Your task to perform on an android device: toggle notification dots Image 0: 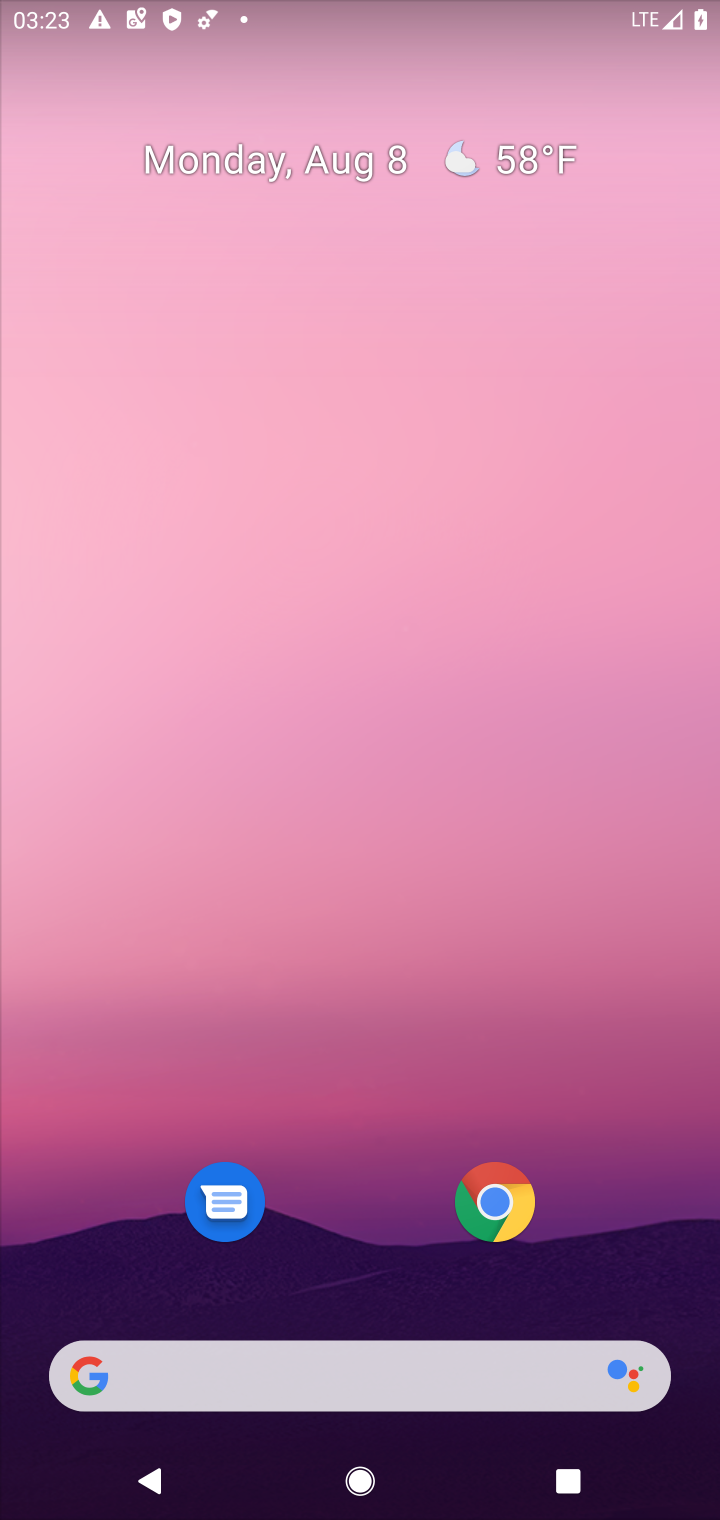
Step 0: click (211, 228)
Your task to perform on an android device: toggle notification dots Image 1: 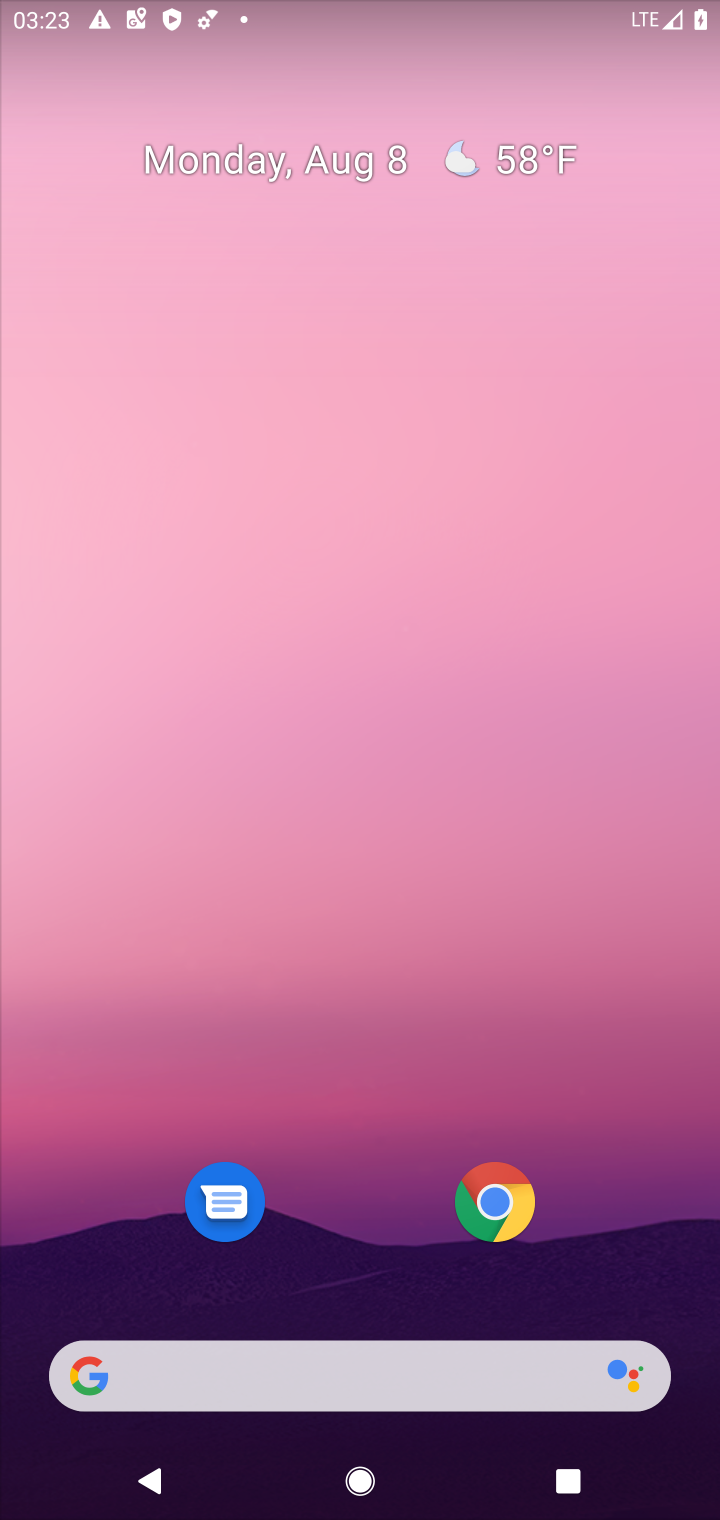
Step 1: click (350, 233)
Your task to perform on an android device: toggle notification dots Image 2: 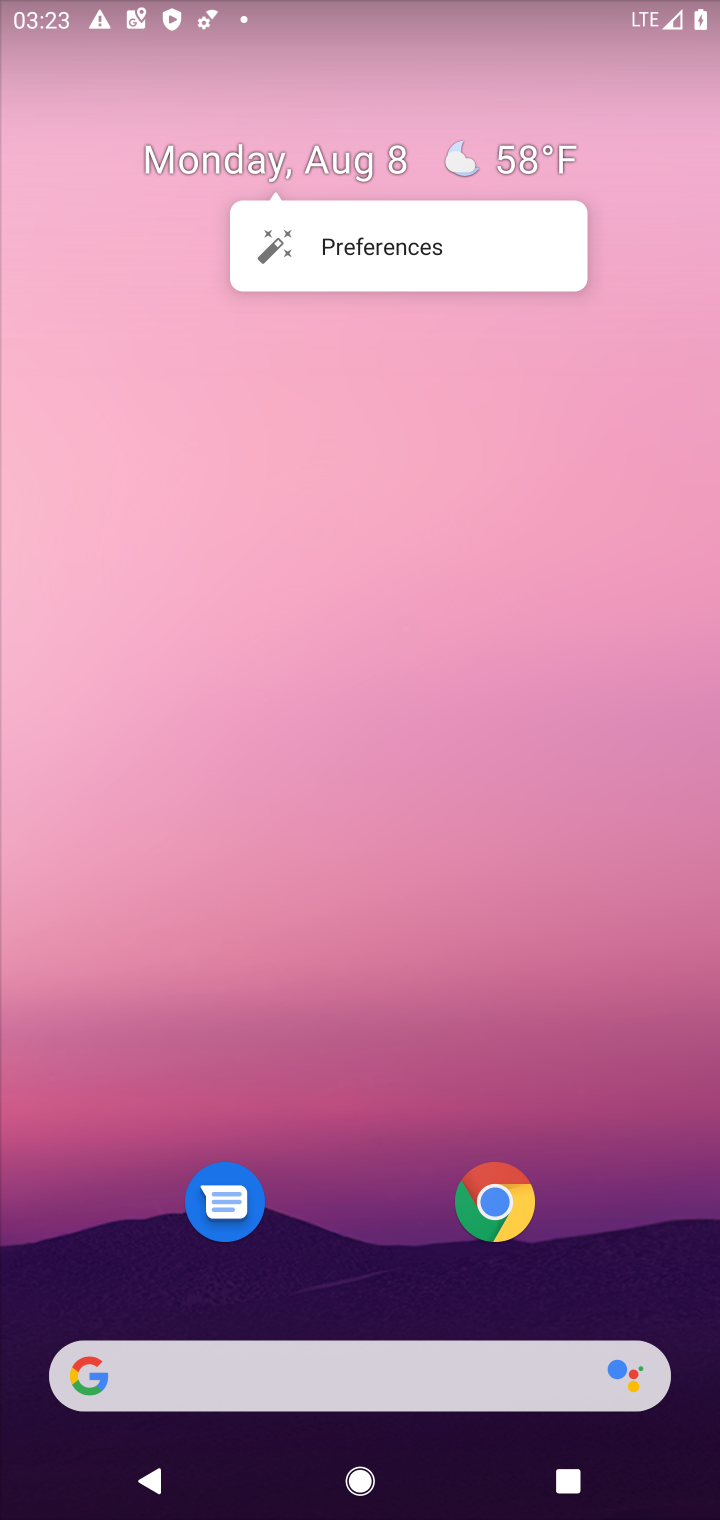
Step 2: drag from (372, 1211) to (371, 41)
Your task to perform on an android device: toggle notification dots Image 3: 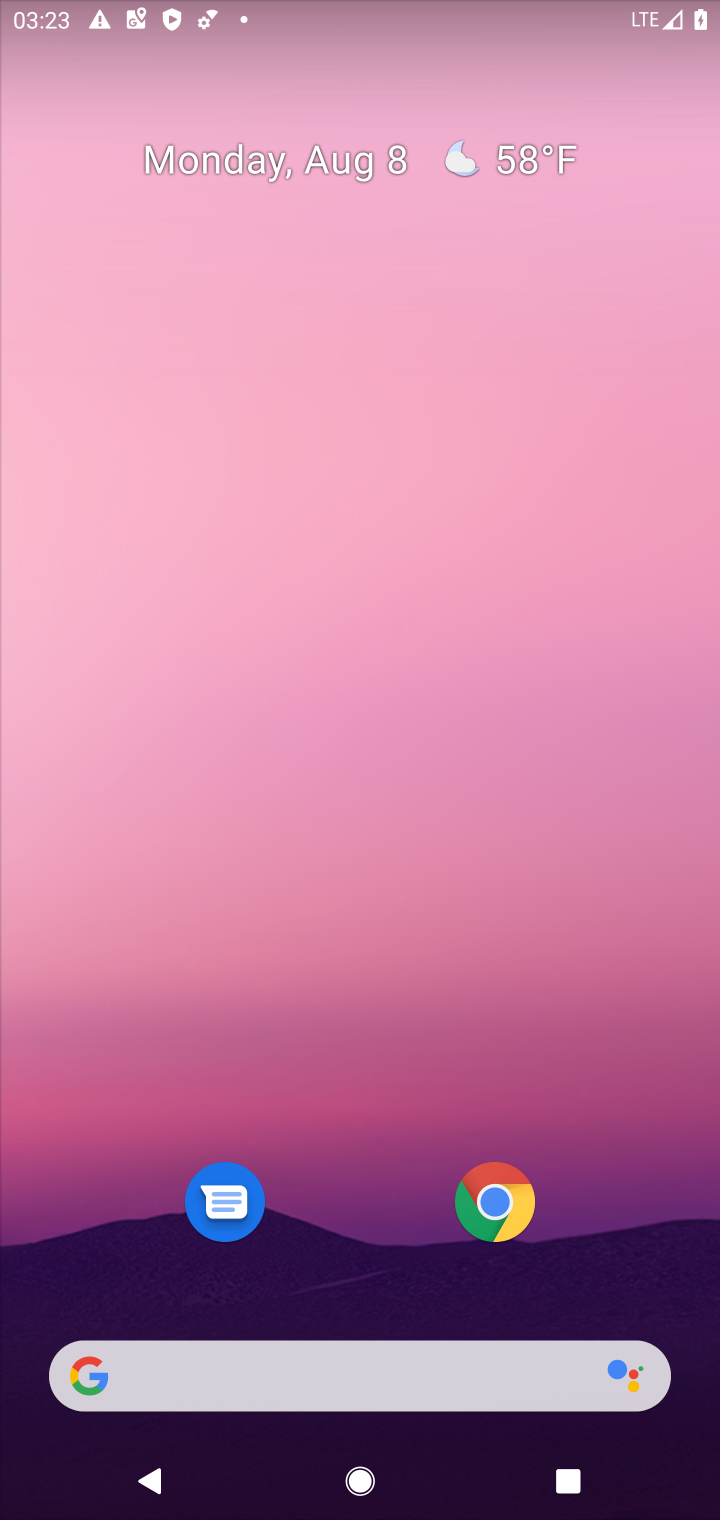
Step 3: drag from (344, 1150) to (379, 263)
Your task to perform on an android device: toggle notification dots Image 4: 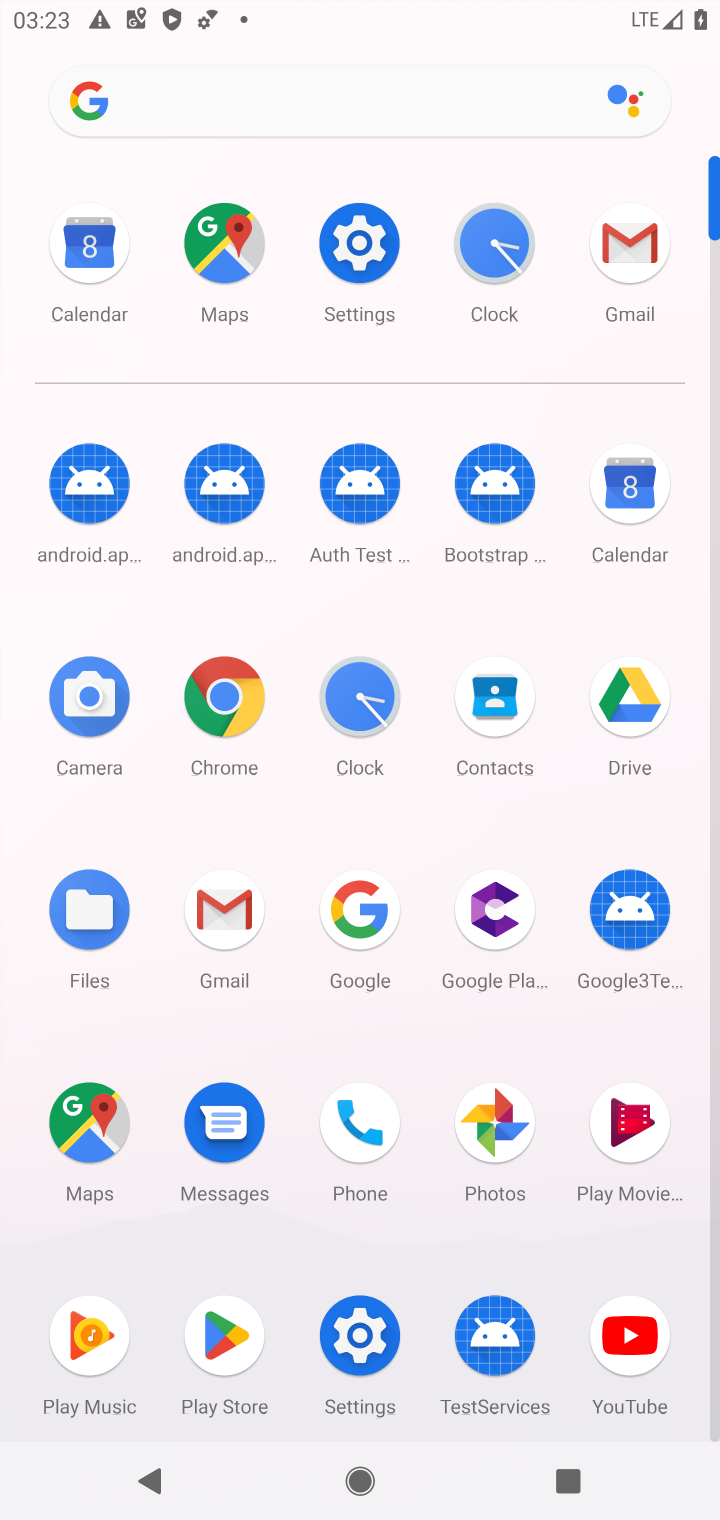
Step 4: click (354, 254)
Your task to perform on an android device: toggle notification dots Image 5: 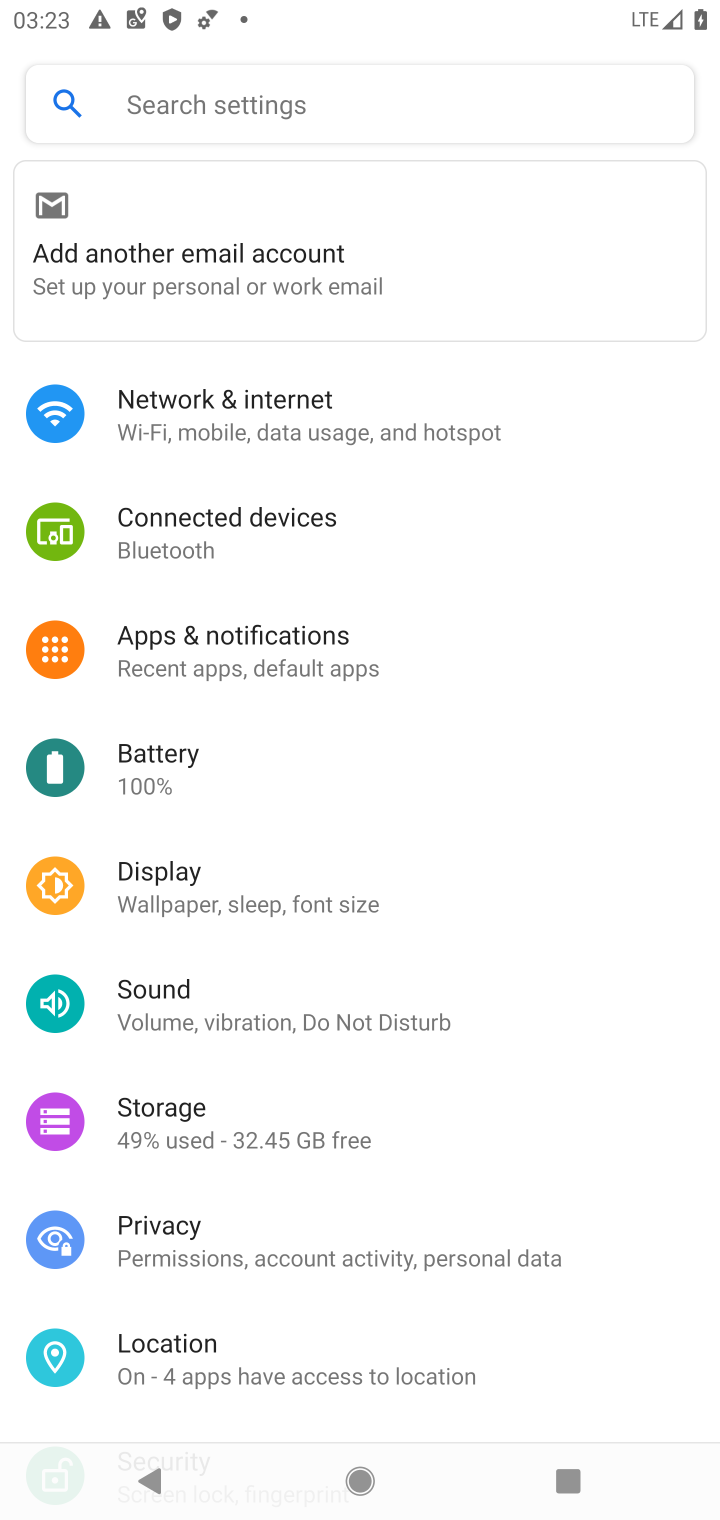
Step 5: click (148, 640)
Your task to perform on an android device: toggle notification dots Image 6: 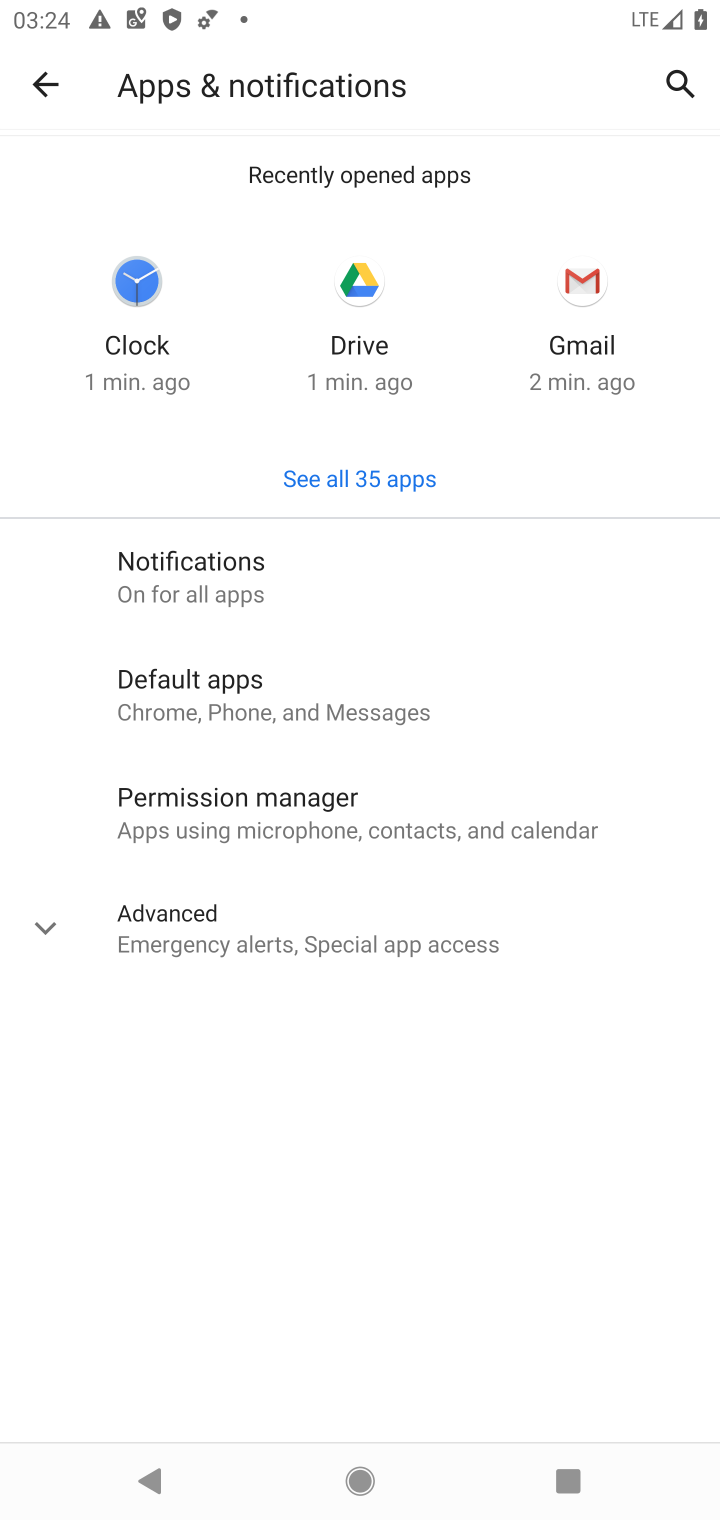
Step 6: click (191, 570)
Your task to perform on an android device: toggle notification dots Image 7: 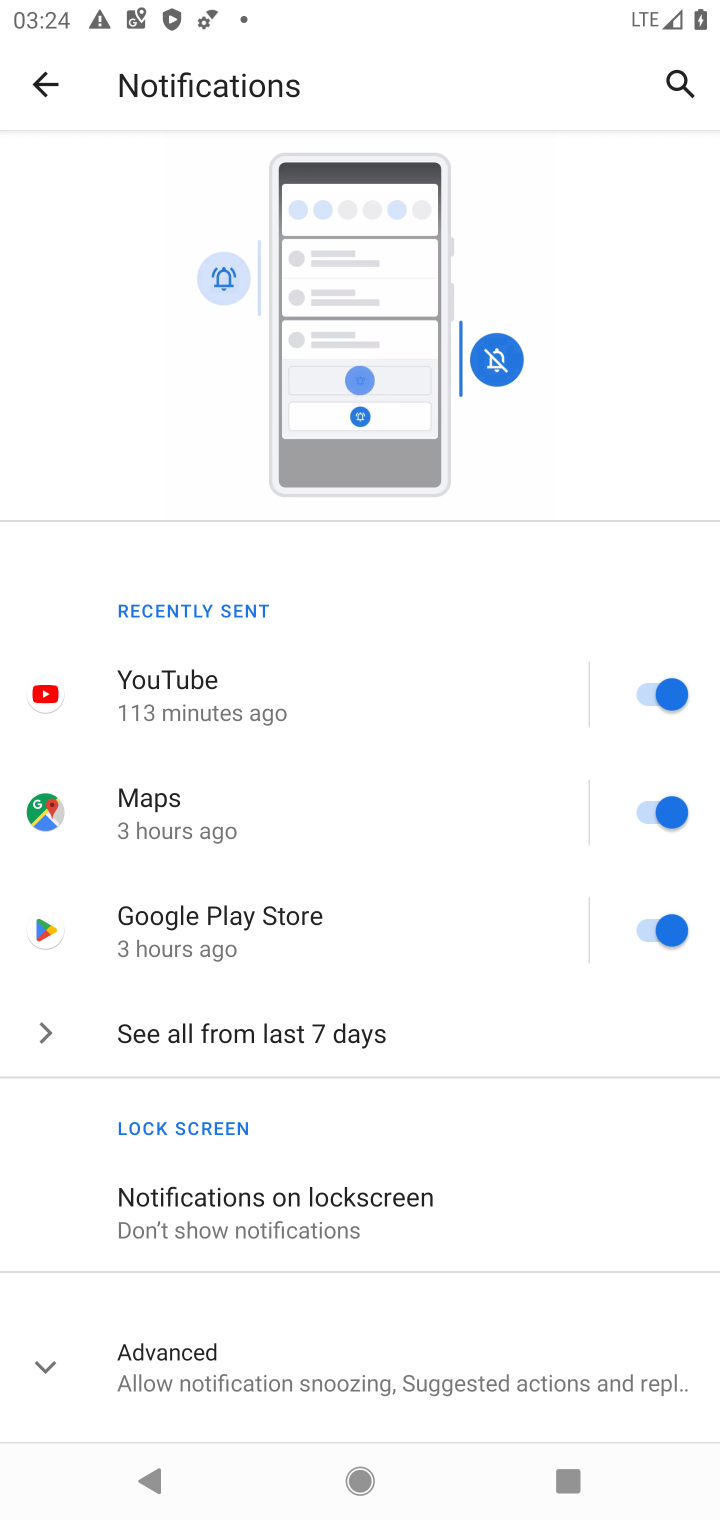
Step 7: click (224, 1369)
Your task to perform on an android device: toggle notification dots Image 8: 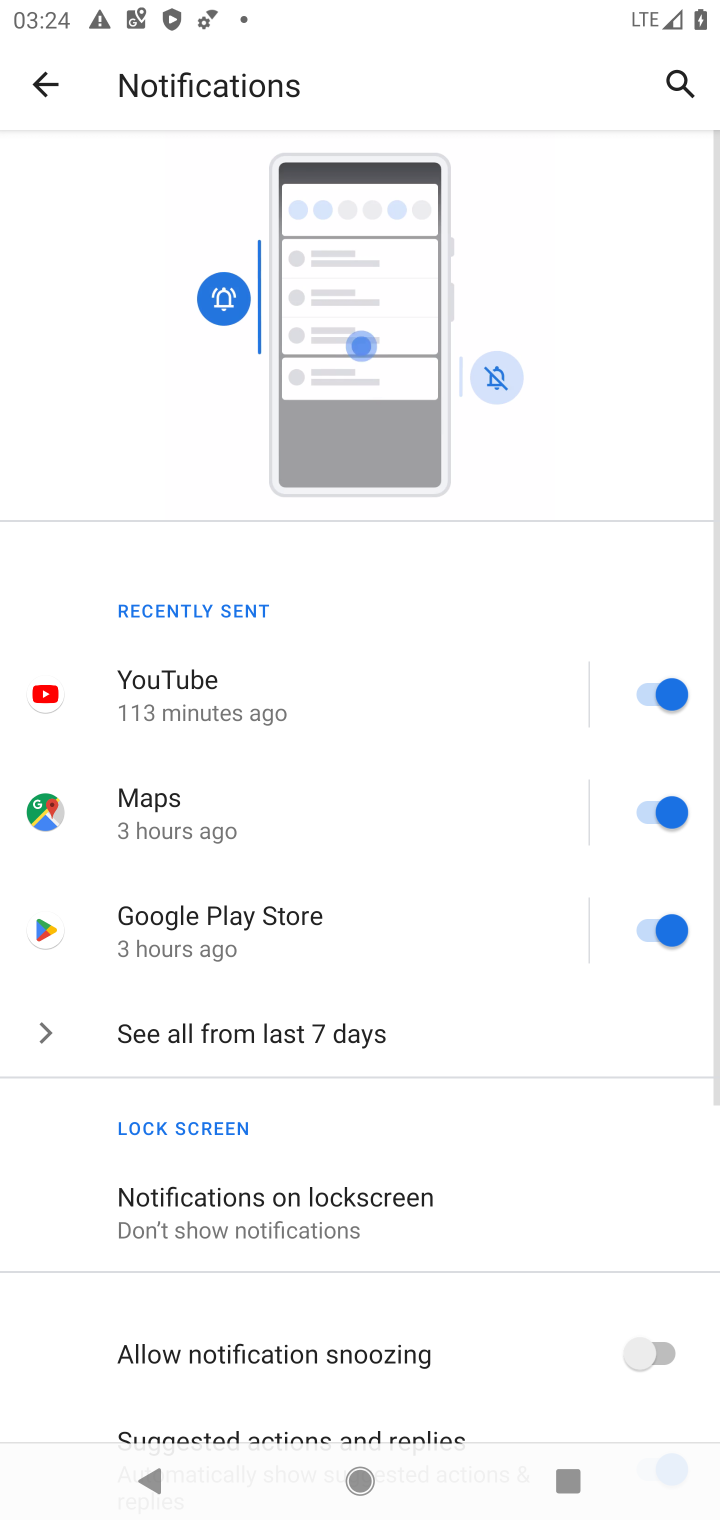
Step 8: drag from (333, 763) to (414, 559)
Your task to perform on an android device: toggle notification dots Image 9: 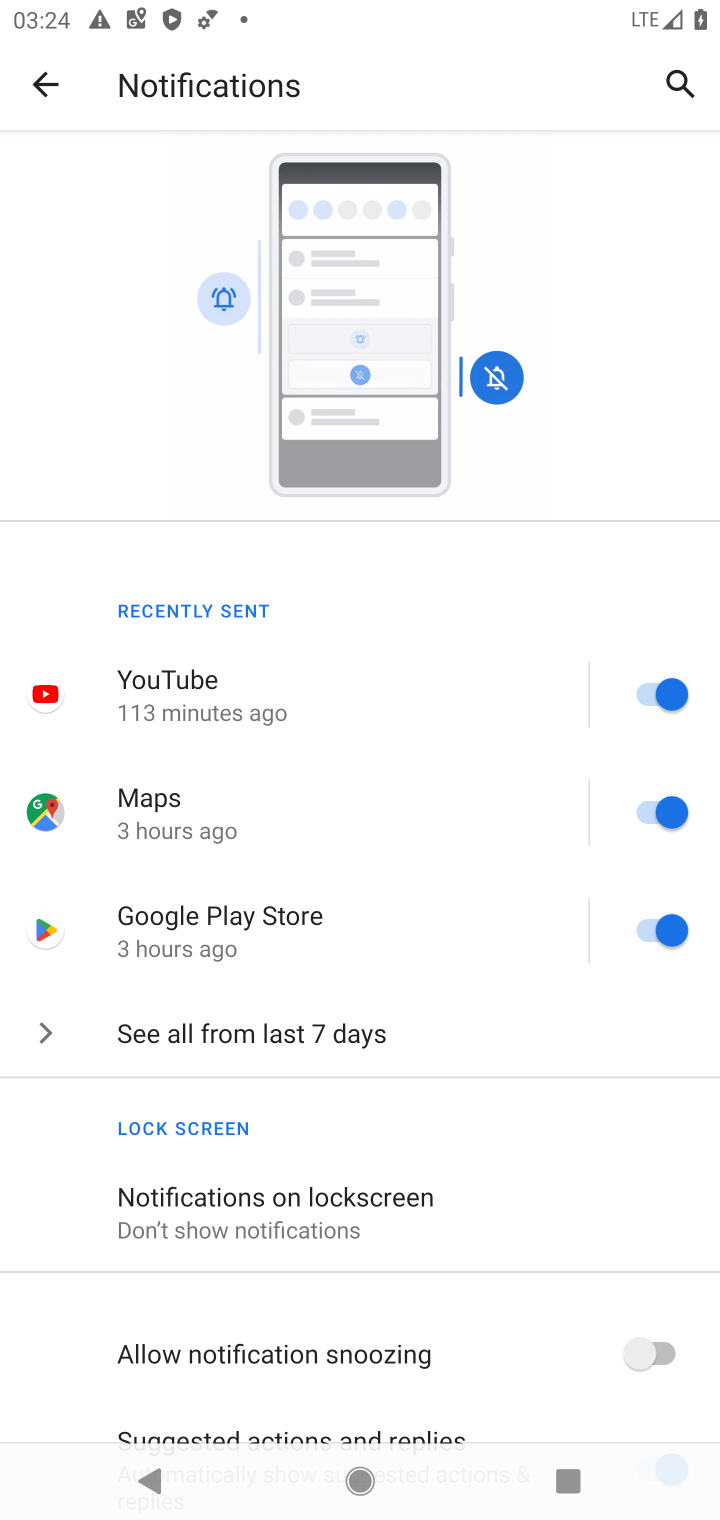
Step 9: drag from (386, 1341) to (628, 268)
Your task to perform on an android device: toggle notification dots Image 10: 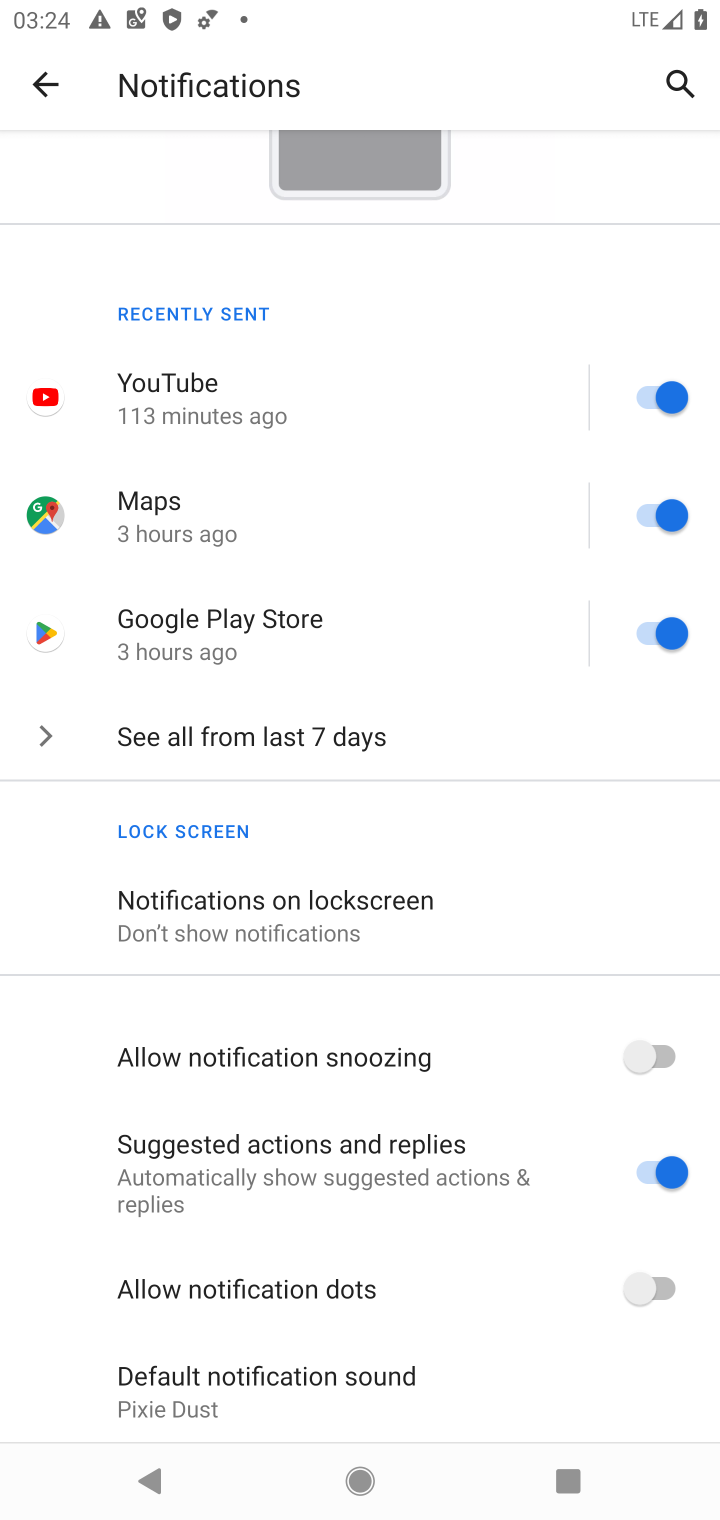
Step 10: click (671, 1307)
Your task to perform on an android device: toggle notification dots Image 11: 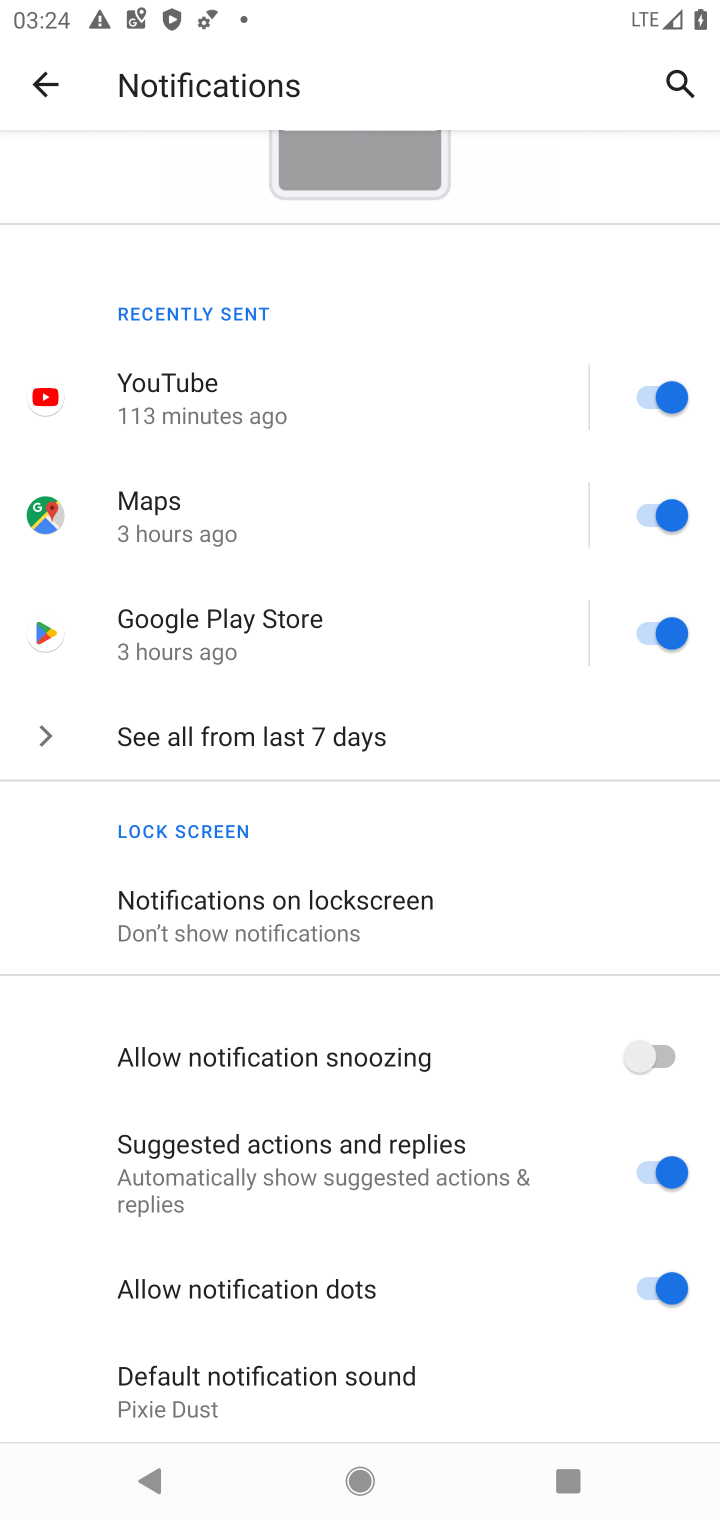
Step 11: task complete